Your task to perform on an android device: turn pop-ups on in chrome Image 0: 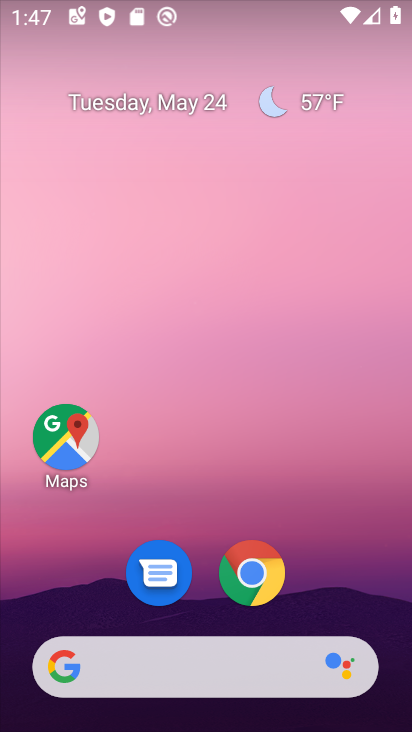
Step 0: drag from (346, 580) to (310, 108)
Your task to perform on an android device: turn pop-ups on in chrome Image 1: 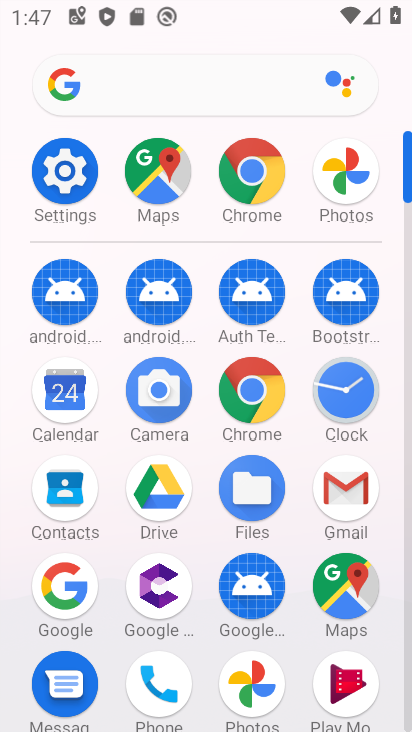
Step 1: click (228, 400)
Your task to perform on an android device: turn pop-ups on in chrome Image 2: 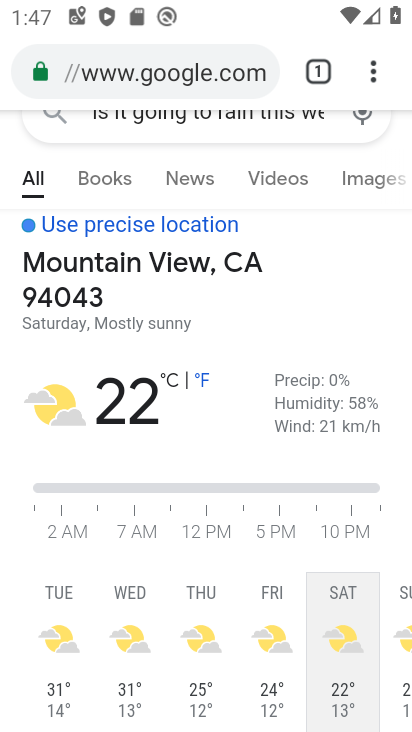
Step 2: drag from (380, 75) to (182, 572)
Your task to perform on an android device: turn pop-ups on in chrome Image 3: 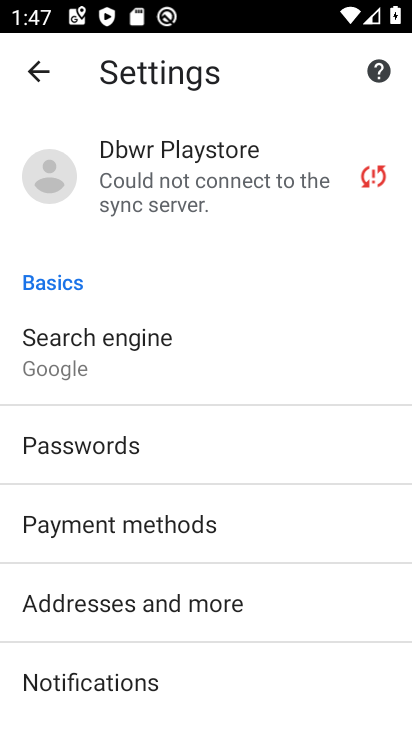
Step 3: drag from (282, 621) to (307, 372)
Your task to perform on an android device: turn pop-ups on in chrome Image 4: 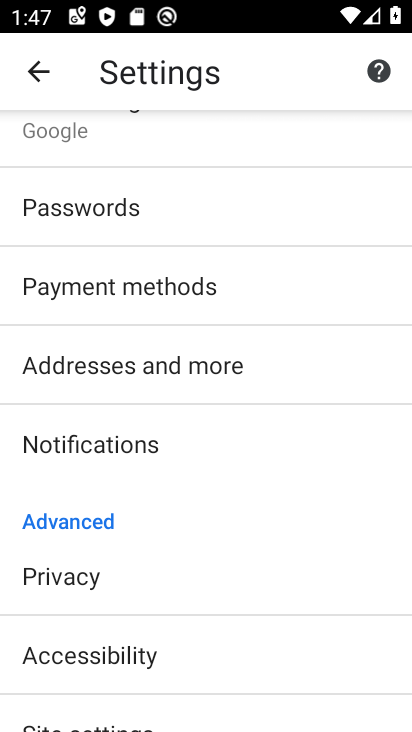
Step 4: drag from (228, 546) to (264, 308)
Your task to perform on an android device: turn pop-ups on in chrome Image 5: 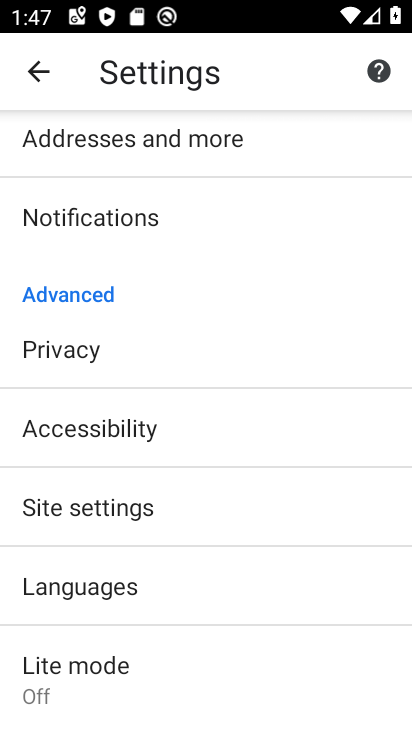
Step 5: drag from (197, 573) to (184, 351)
Your task to perform on an android device: turn pop-ups on in chrome Image 6: 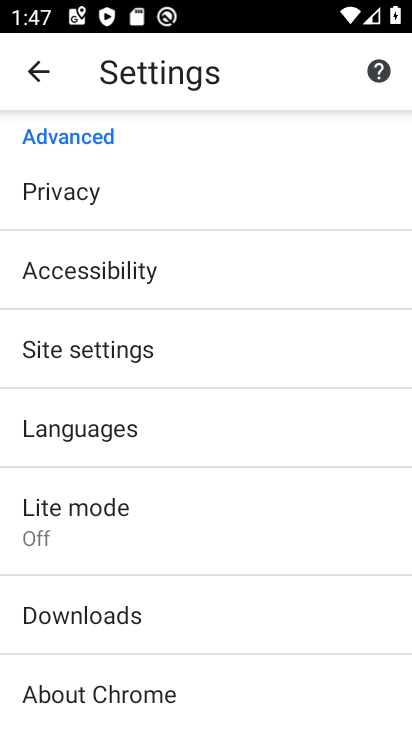
Step 6: click (147, 367)
Your task to perform on an android device: turn pop-ups on in chrome Image 7: 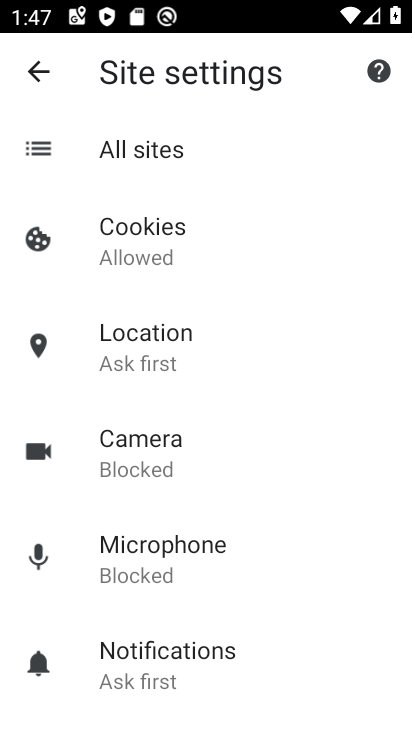
Step 7: drag from (190, 578) to (212, 242)
Your task to perform on an android device: turn pop-ups on in chrome Image 8: 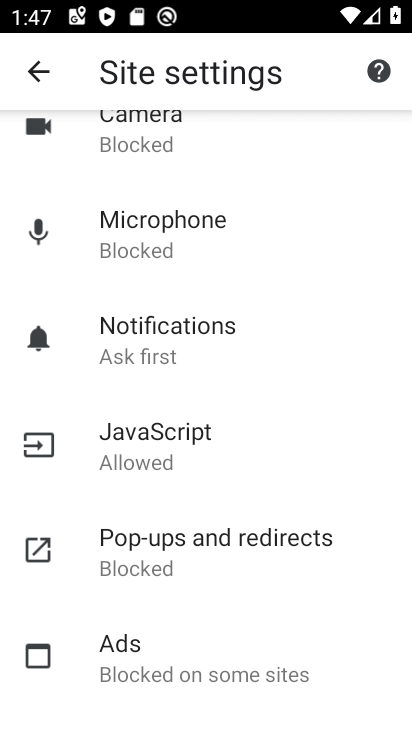
Step 8: click (199, 533)
Your task to perform on an android device: turn pop-ups on in chrome Image 9: 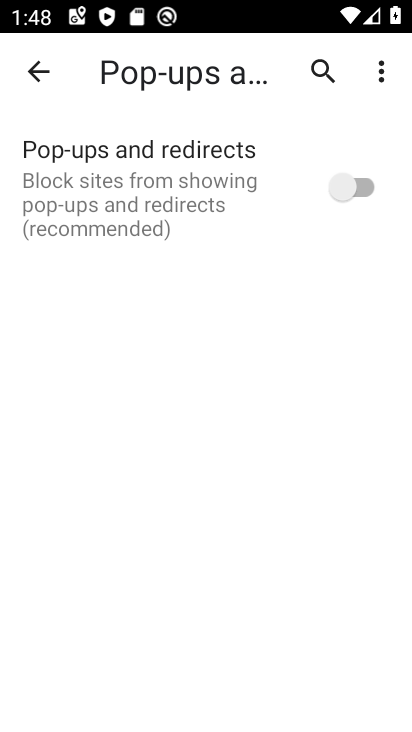
Step 9: click (367, 178)
Your task to perform on an android device: turn pop-ups on in chrome Image 10: 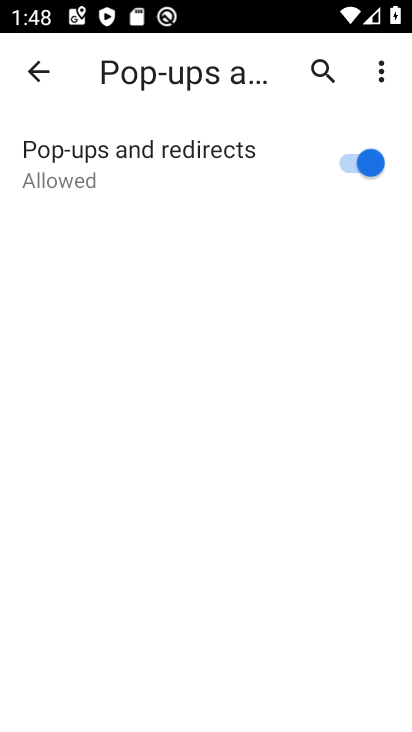
Step 10: task complete